Your task to perform on an android device: Search for Italian restaurants on Maps Image 0: 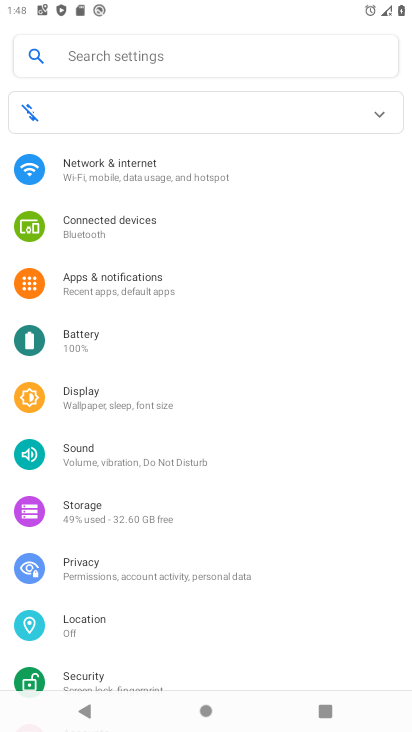
Step 0: press enter
Your task to perform on an android device: Search for Italian restaurants on Maps Image 1: 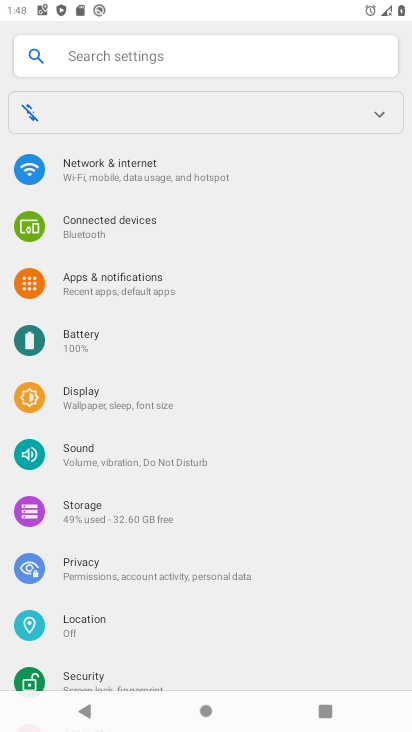
Step 1: press home button
Your task to perform on an android device: Search for Italian restaurants on Maps Image 2: 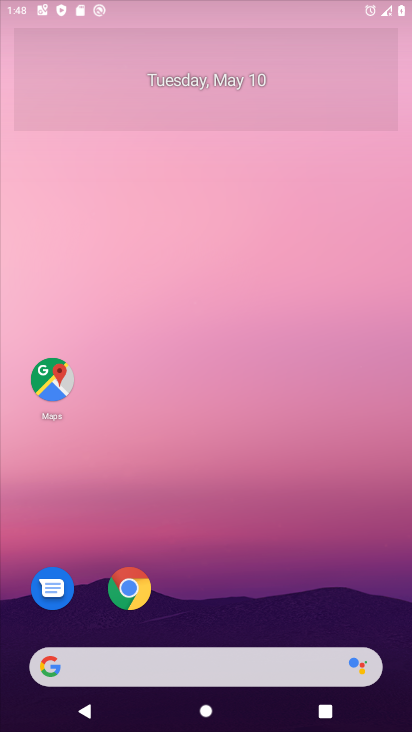
Step 2: drag from (215, 640) to (256, 249)
Your task to perform on an android device: Search for Italian restaurants on Maps Image 3: 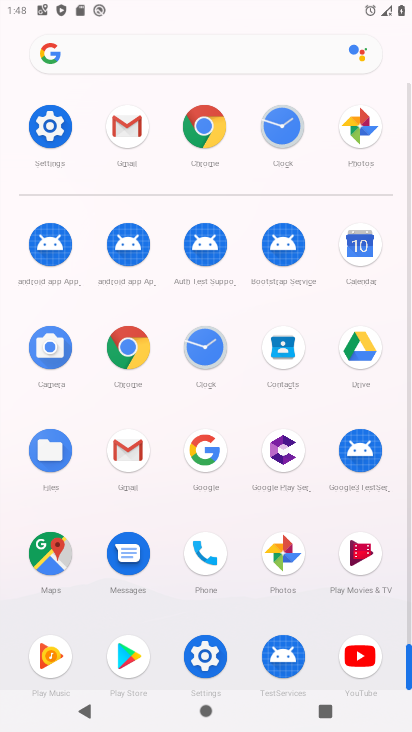
Step 3: click (47, 553)
Your task to perform on an android device: Search for Italian restaurants on Maps Image 4: 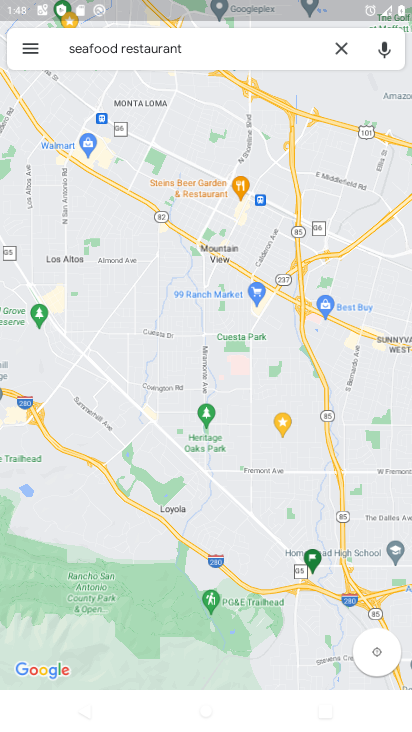
Step 4: click (179, 43)
Your task to perform on an android device: Search for Italian restaurants on Maps Image 5: 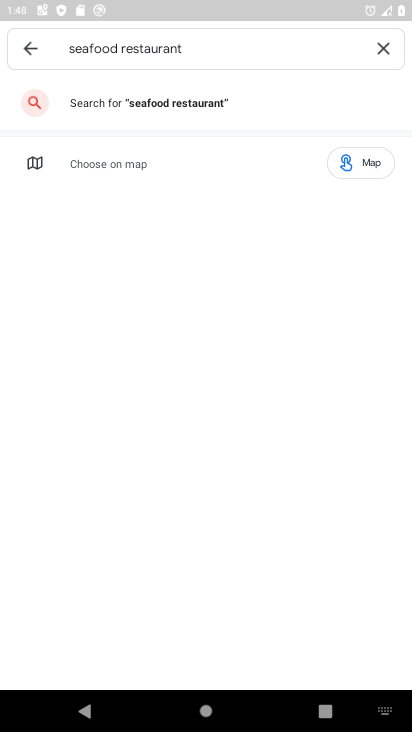
Step 5: click (383, 48)
Your task to perform on an android device: Search for Italian restaurants on Maps Image 6: 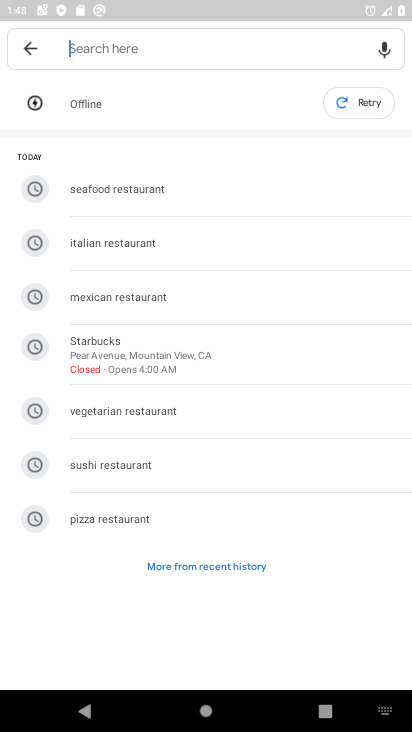
Step 6: click (124, 245)
Your task to perform on an android device: Search for Italian restaurants on Maps Image 7: 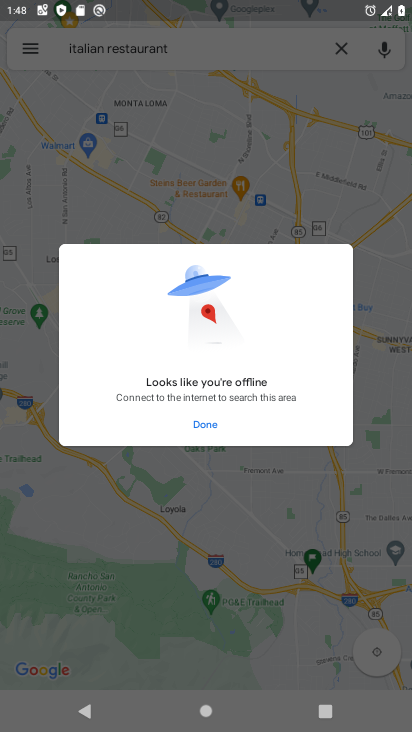
Step 7: click (209, 414)
Your task to perform on an android device: Search for Italian restaurants on Maps Image 8: 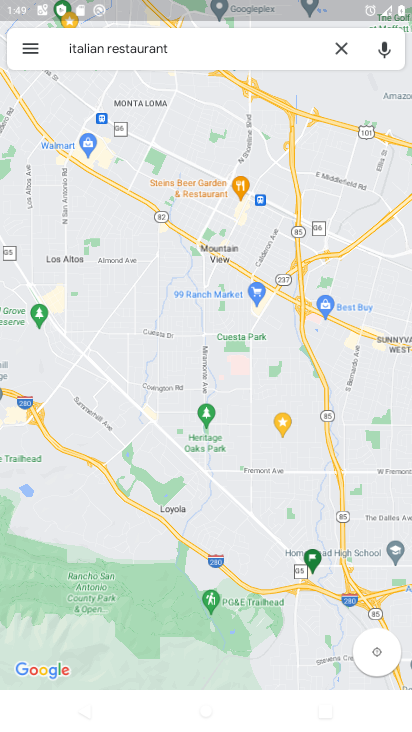
Step 8: task complete